Your task to perform on an android device: delete a single message in the gmail app Image 0: 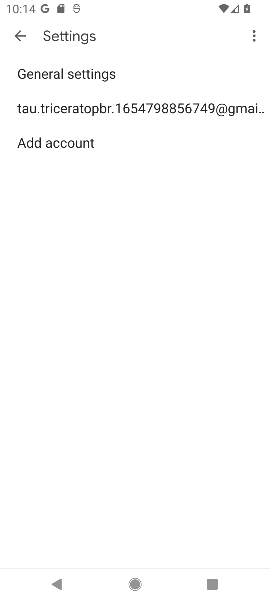
Step 0: press back button
Your task to perform on an android device: delete a single message in the gmail app Image 1: 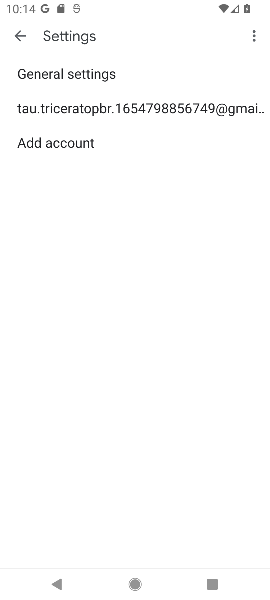
Step 1: press back button
Your task to perform on an android device: delete a single message in the gmail app Image 2: 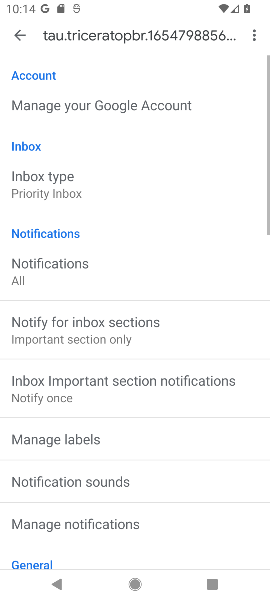
Step 2: press back button
Your task to perform on an android device: delete a single message in the gmail app Image 3: 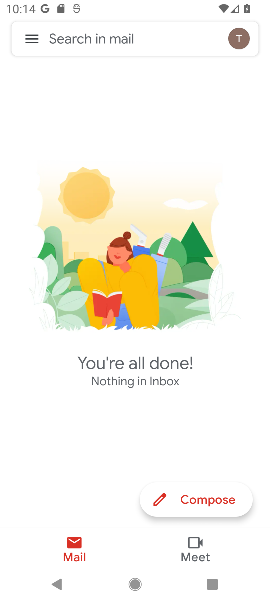
Step 3: press home button
Your task to perform on an android device: delete a single message in the gmail app Image 4: 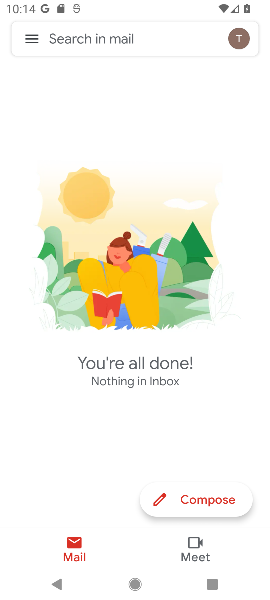
Step 4: press home button
Your task to perform on an android device: delete a single message in the gmail app Image 5: 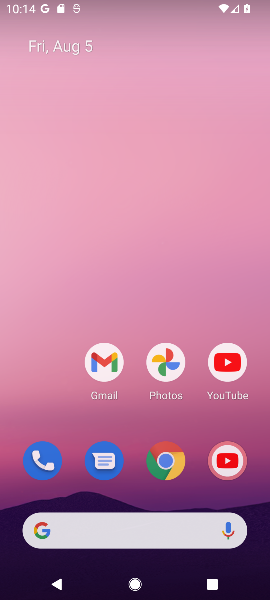
Step 5: press home button
Your task to perform on an android device: delete a single message in the gmail app Image 6: 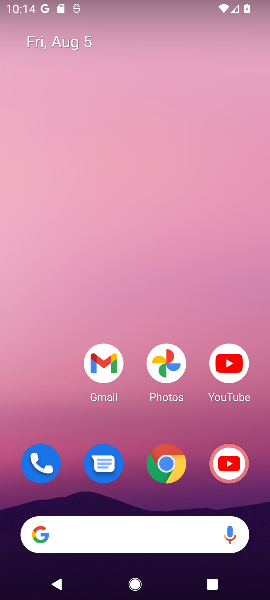
Step 6: press home button
Your task to perform on an android device: delete a single message in the gmail app Image 7: 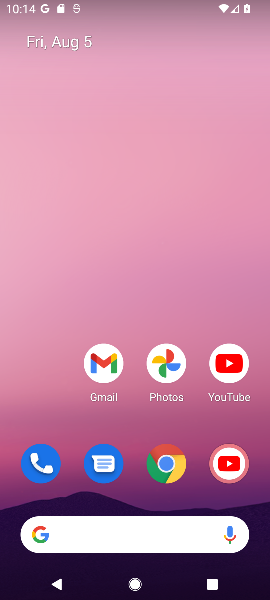
Step 7: drag from (171, 548) to (155, 166)
Your task to perform on an android device: delete a single message in the gmail app Image 8: 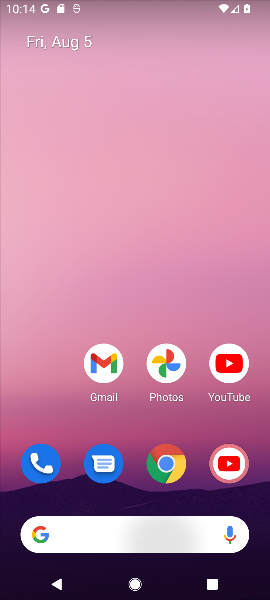
Step 8: drag from (157, 437) to (121, 52)
Your task to perform on an android device: delete a single message in the gmail app Image 9: 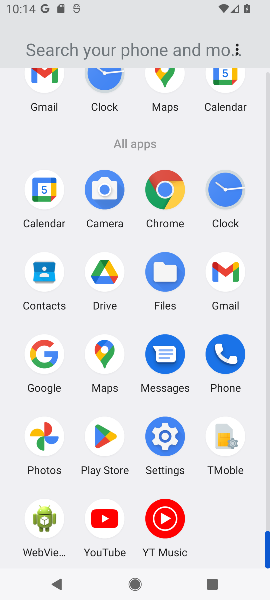
Step 9: click (224, 267)
Your task to perform on an android device: delete a single message in the gmail app Image 10: 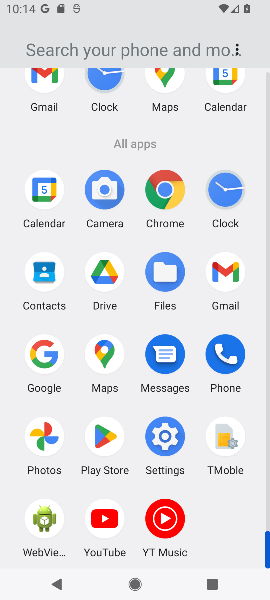
Step 10: click (224, 267)
Your task to perform on an android device: delete a single message in the gmail app Image 11: 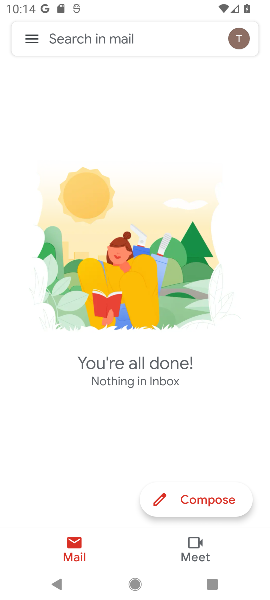
Step 11: click (25, 36)
Your task to perform on an android device: delete a single message in the gmail app Image 12: 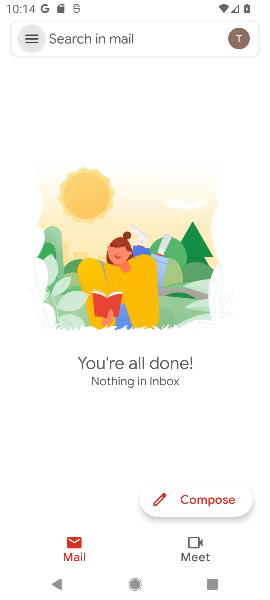
Step 12: click (25, 36)
Your task to perform on an android device: delete a single message in the gmail app Image 13: 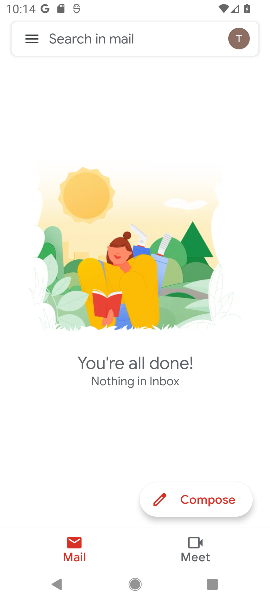
Step 13: click (29, 37)
Your task to perform on an android device: delete a single message in the gmail app Image 14: 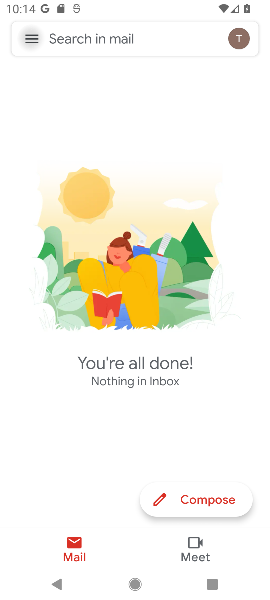
Step 14: click (29, 36)
Your task to perform on an android device: delete a single message in the gmail app Image 15: 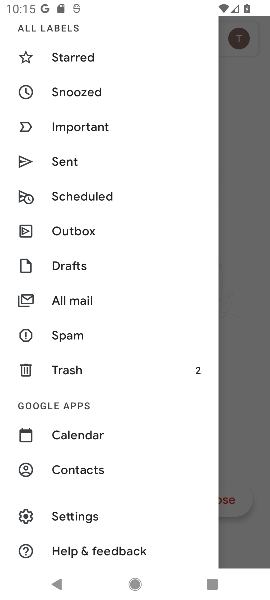
Step 15: click (67, 294)
Your task to perform on an android device: delete a single message in the gmail app Image 16: 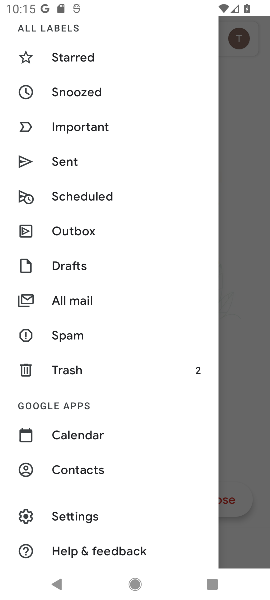
Step 16: click (67, 294)
Your task to perform on an android device: delete a single message in the gmail app Image 17: 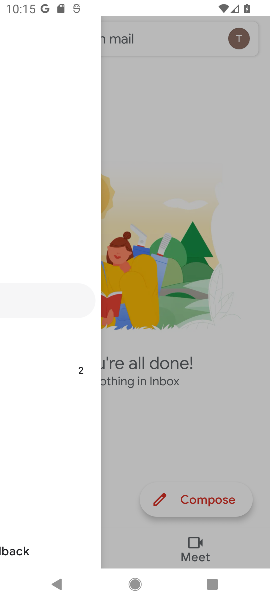
Step 17: click (67, 294)
Your task to perform on an android device: delete a single message in the gmail app Image 18: 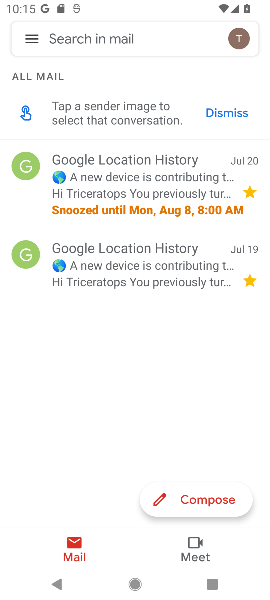
Step 18: click (146, 176)
Your task to perform on an android device: delete a single message in the gmail app Image 19: 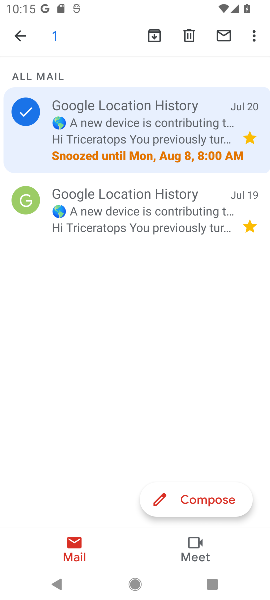
Step 19: click (183, 39)
Your task to perform on an android device: delete a single message in the gmail app Image 20: 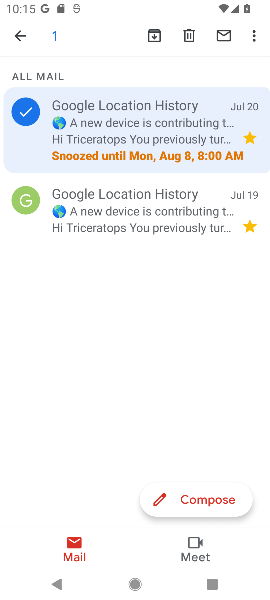
Step 20: click (183, 39)
Your task to perform on an android device: delete a single message in the gmail app Image 21: 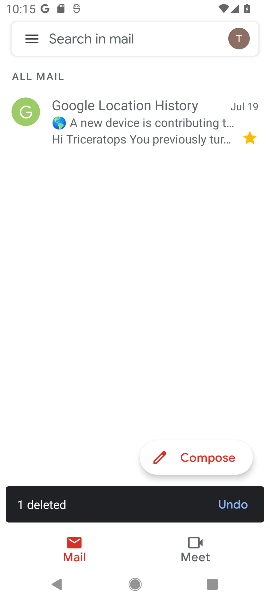
Step 21: task complete